Your task to perform on an android device: Do I have any events this weekend? Image 0: 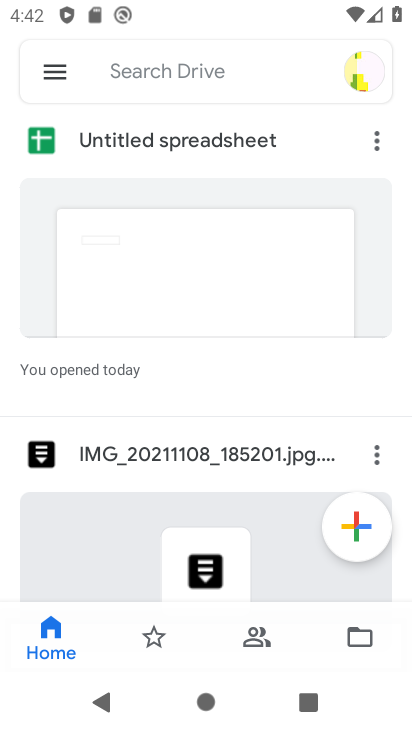
Step 0: press home button
Your task to perform on an android device: Do I have any events this weekend? Image 1: 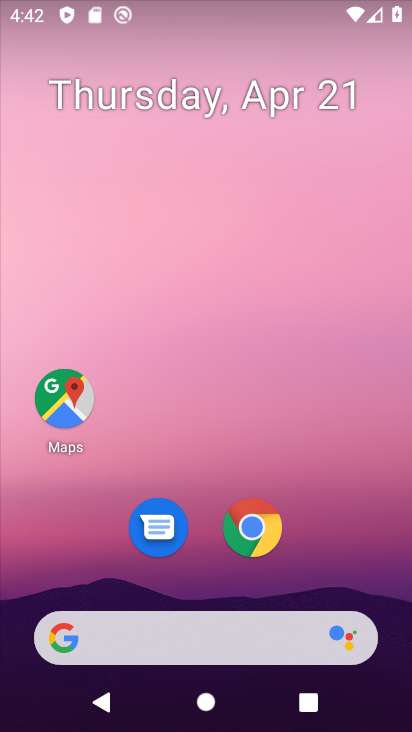
Step 1: click (336, 232)
Your task to perform on an android device: Do I have any events this weekend? Image 2: 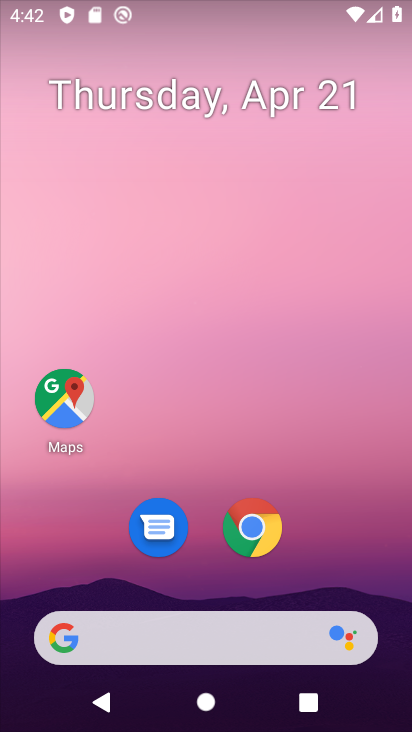
Step 2: drag from (344, 239) to (306, 55)
Your task to perform on an android device: Do I have any events this weekend? Image 3: 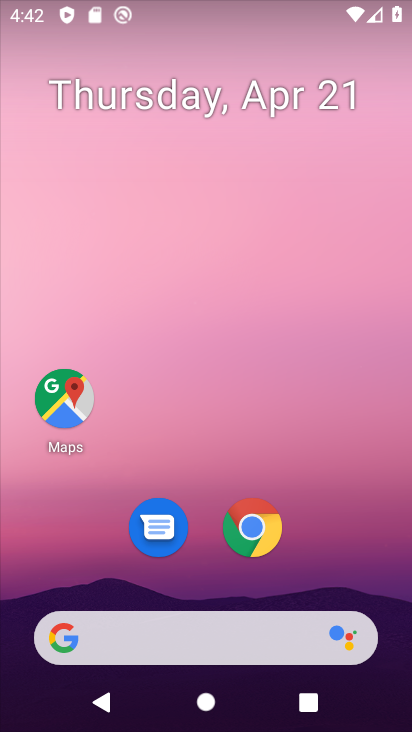
Step 3: click (373, 149)
Your task to perform on an android device: Do I have any events this weekend? Image 4: 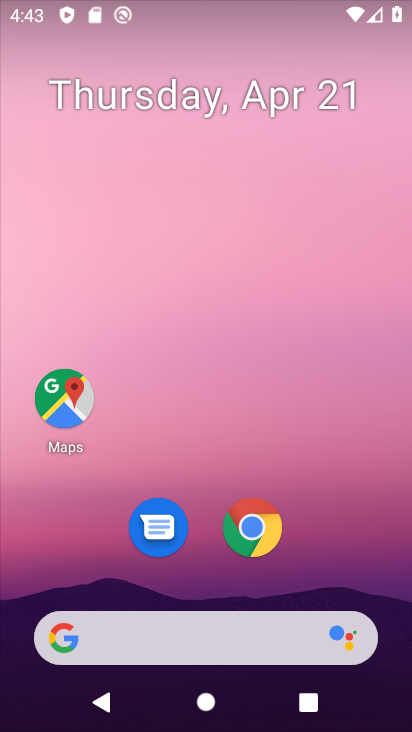
Step 4: drag from (379, 546) to (397, 148)
Your task to perform on an android device: Do I have any events this weekend? Image 5: 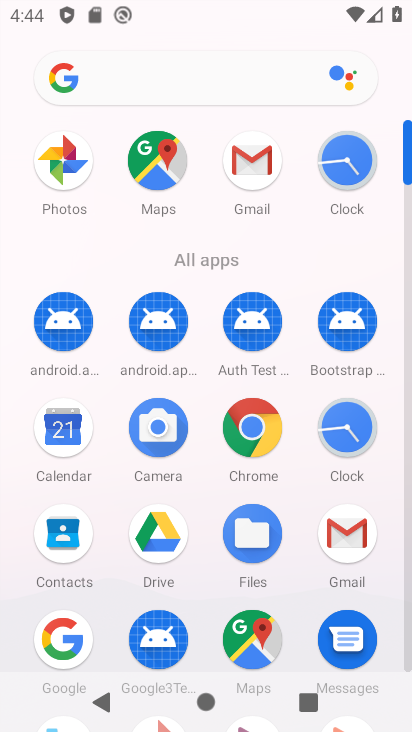
Step 5: click (52, 434)
Your task to perform on an android device: Do I have any events this weekend? Image 6: 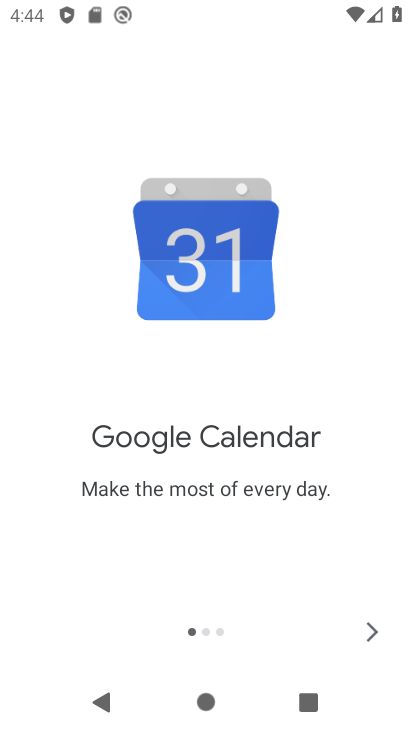
Step 6: click (366, 629)
Your task to perform on an android device: Do I have any events this weekend? Image 7: 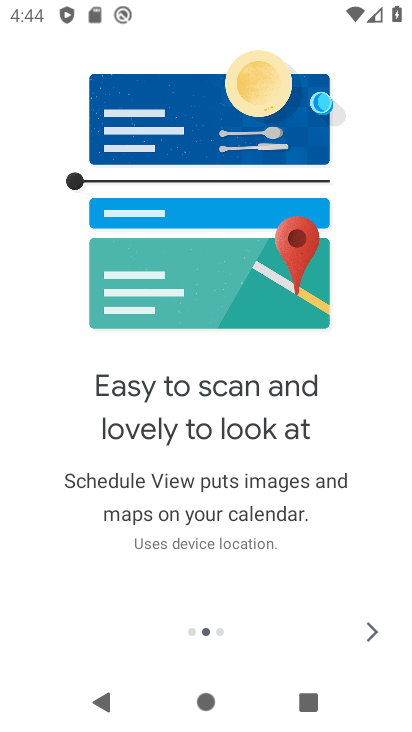
Step 7: click (366, 629)
Your task to perform on an android device: Do I have any events this weekend? Image 8: 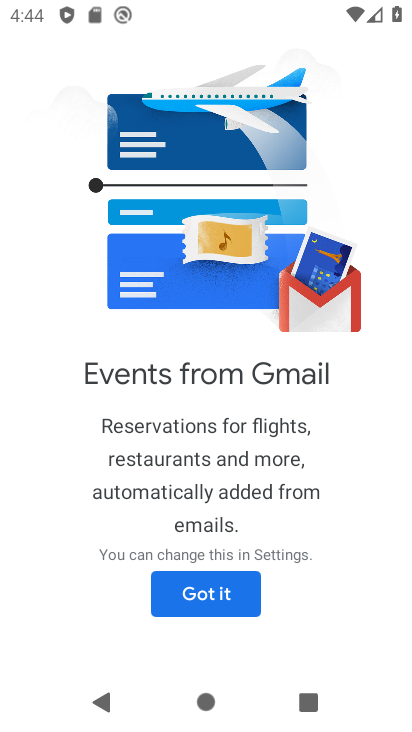
Step 8: click (210, 577)
Your task to perform on an android device: Do I have any events this weekend? Image 9: 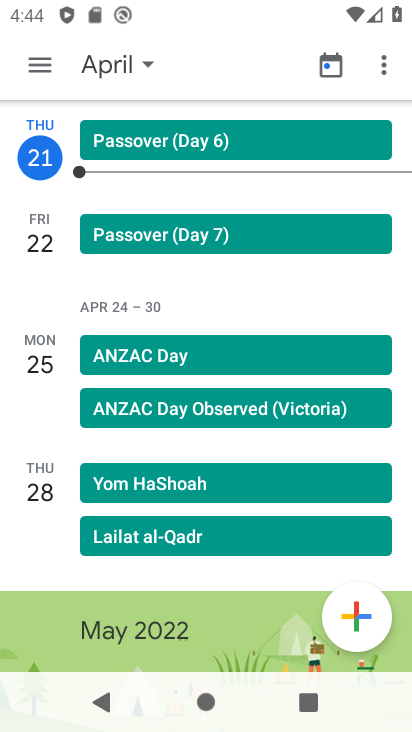
Step 9: click (146, 56)
Your task to perform on an android device: Do I have any events this weekend? Image 10: 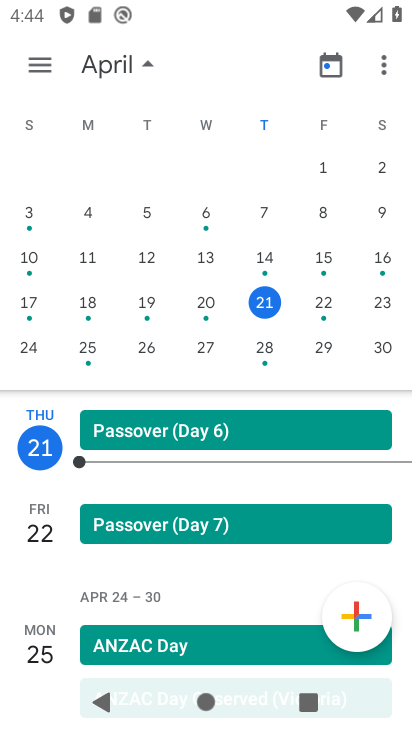
Step 10: click (33, 55)
Your task to perform on an android device: Do I have any events this weekend? Image 11: 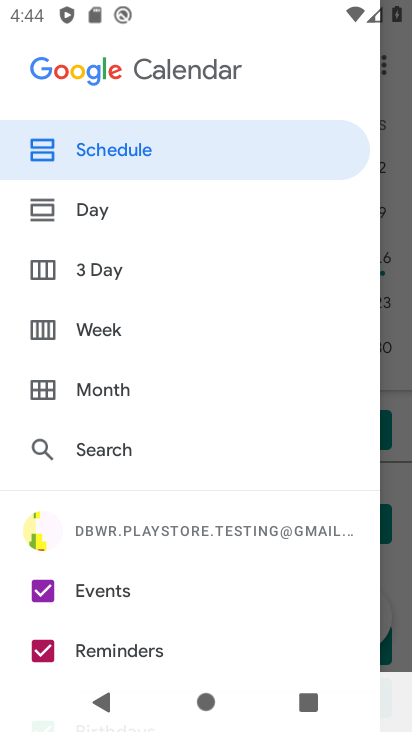
Step 11: drag from (241, 633) to (258, 335)
Your task to perform on an android device: Do I have any events this weekend? Image 12: 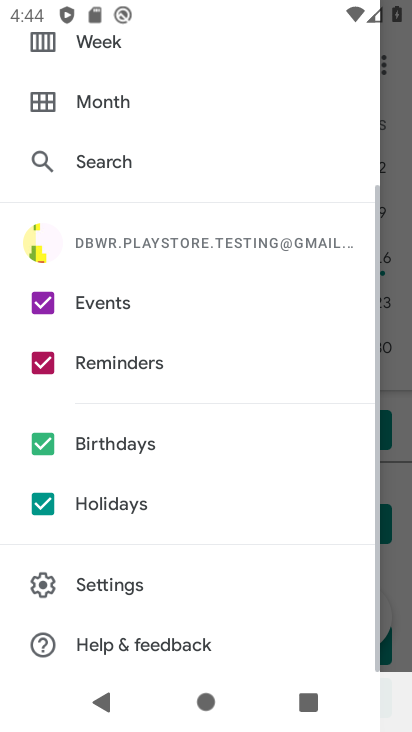
Step 12: drag from (271, 585) to (263, 334)
Your task to perform on an android device: Do I have any events this weekend? Image 13: 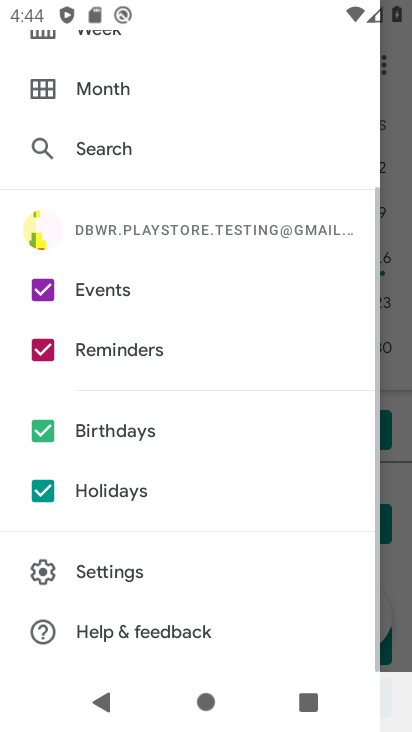
Step 13: click (42, 479)
Your task to perform on an android device: Do I have any events this weekend? Image 14: 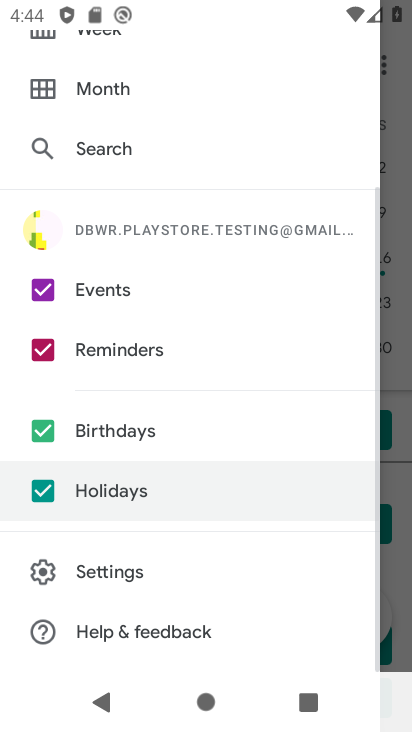
Step 14: click (46, 427)
Your task to perform on an android device: Do I have any events this weekend? Image 15: 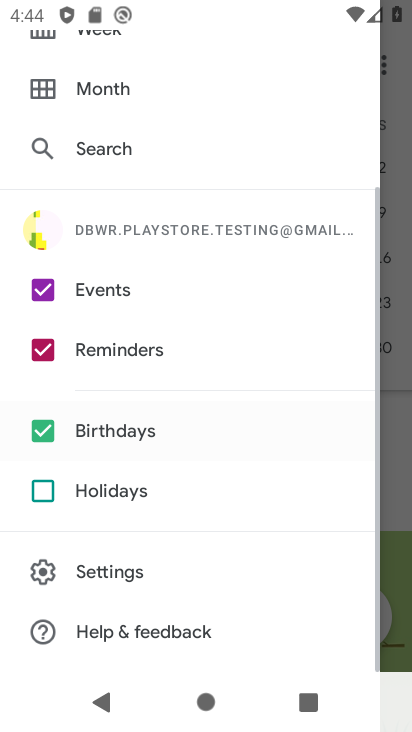
Step 15: click (41, 342)
Your task to perform on an android device: Do I have any events this weekend? Image 16: 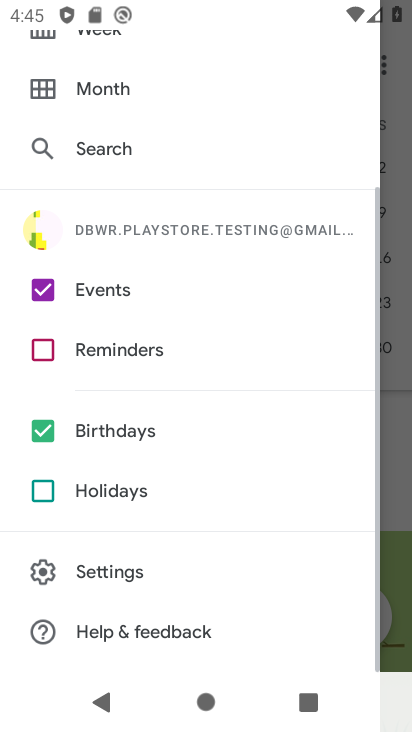
Step 16: click (43, 426)
Your task to perform on an android device: Do I have any events this weekend? Image 17: 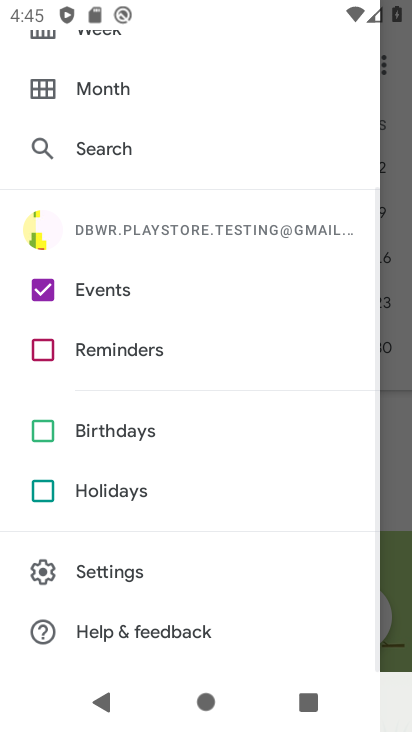
Step 17: drag from (270, 235) to (296, 616)
Your task to perform on an android device: Do I have any events this weekend? Image 18: 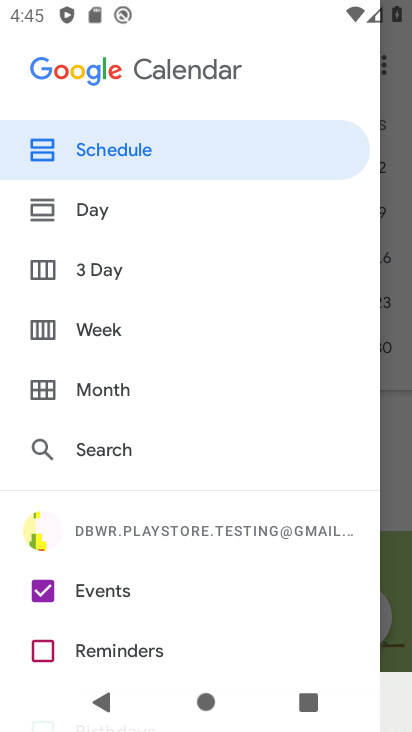
Step 18: drag from (273, 470) to (269, 553)
Your task to perform on an android device: Do I have any events this weekend? Image 19: 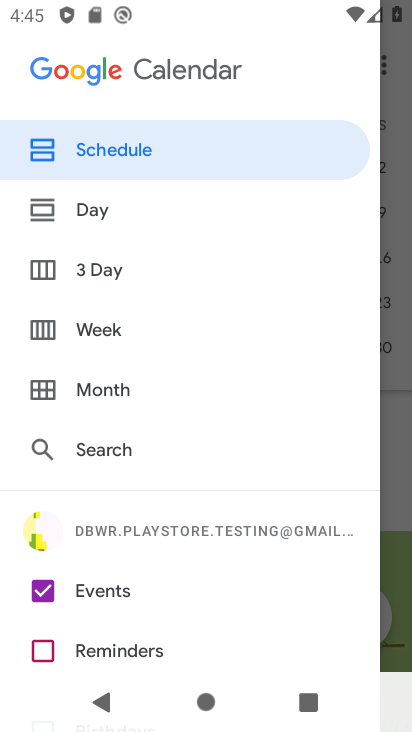
Step 19: click (105, 331)
Your task to perform on an android device: Do I have any events this weekend? Image 20: 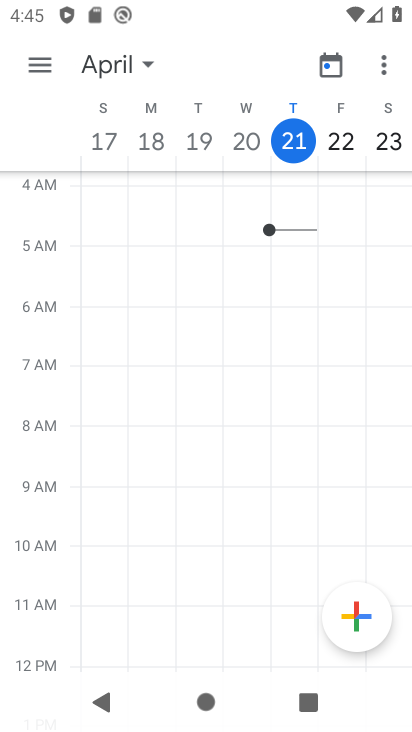
Step 20: task complete